Your task to perform on an android device: install app "TextNow: Call + Text Unlimited" Image 0: 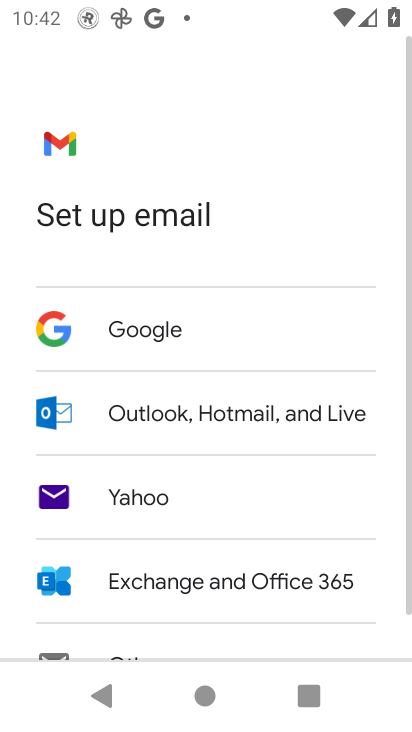
Step 0: press back button
Your task to perform on an android device: install app "TextNow: Call + Text Unlimited" Image 1: 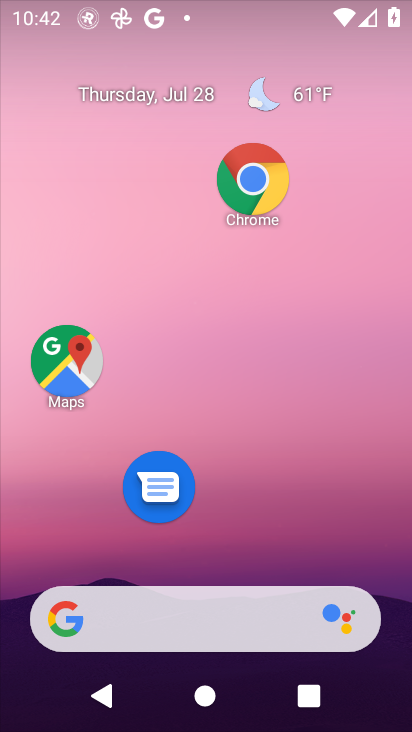
Step 1: drag from (251, 632) to (241, 131)
Your task to perform on an android device: install app "TextNow: Call + Text Unlimited" Image 2: 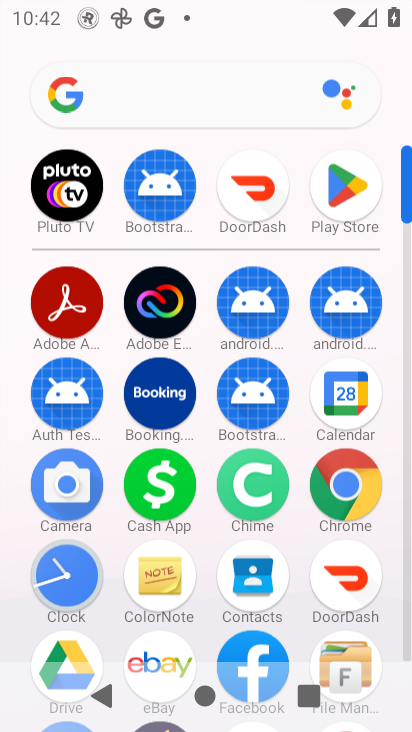
Step 2: drag from (263, 475) to (248, 123)
Your task to perform on an android device: install app "TextNow: Call + Text Unlimited" Image 3: 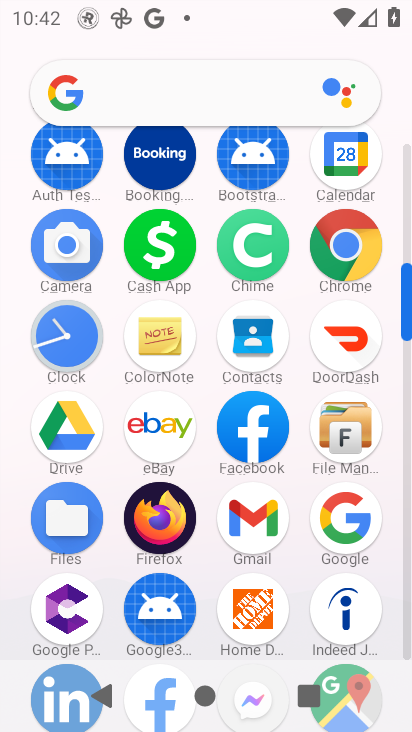
Step 3: drag from (272, 210) to (352, 529)
Your task to perform on an android device: install app "TextNow: Call + Text Unlimited" Image 4: 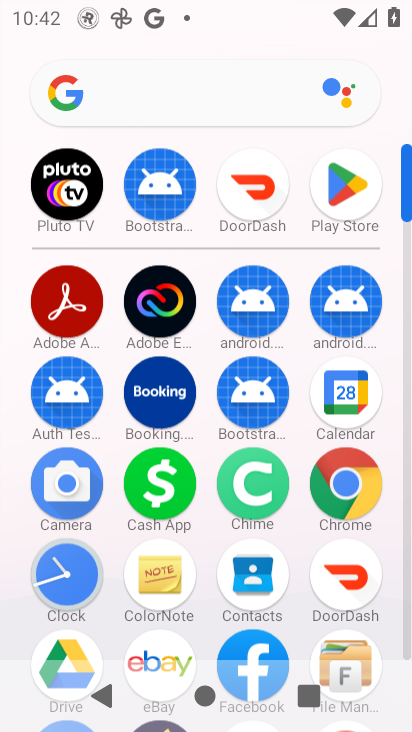
Step 4: drag from (329, 288) to (310, 555)
Your task to perform on an android device: install app "TextNow: Call + Text Unlimited" Image 5: 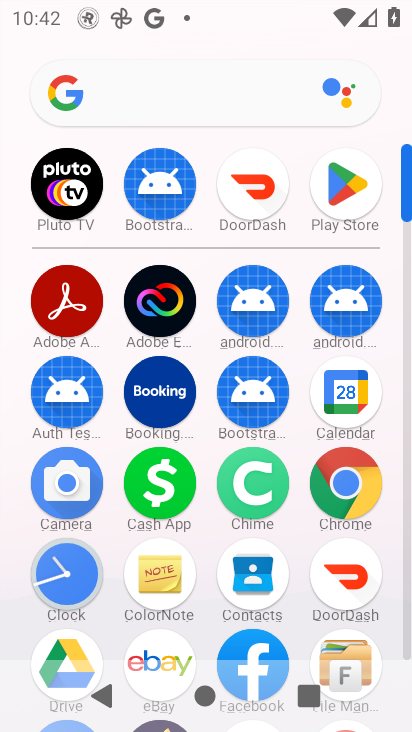
Step 5: click (349, 186)
Your task to perform on an android device: install app "TextNow: Call + Text Unlimited" Image 6: 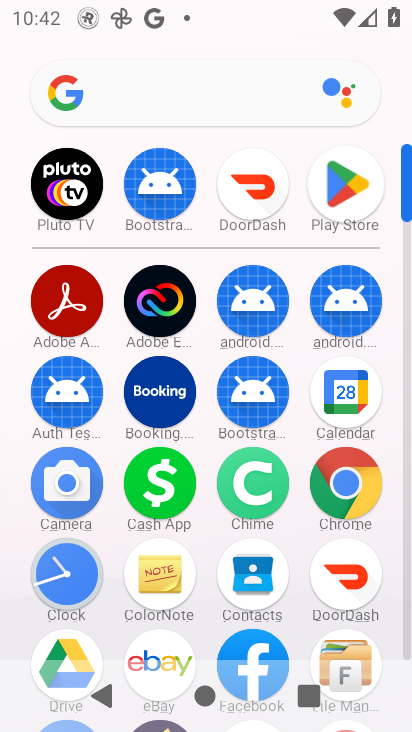
Step 6: click (350, 185)
Your task to perform on an android device: install app "TextNow: Call + Text Unlimited" Image 7: 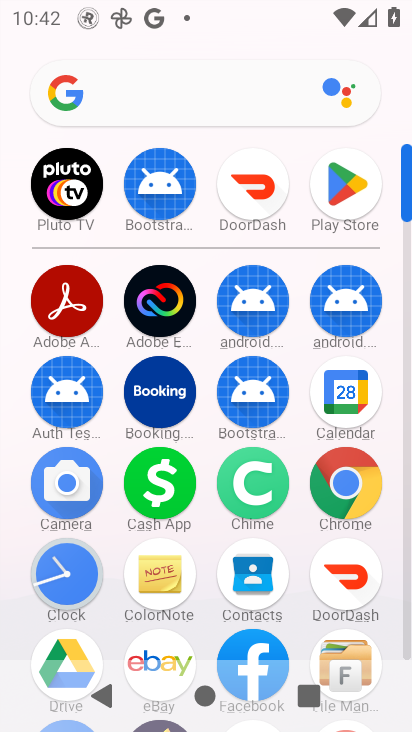
Step 7: click (345, 183)
Your task to perform on an android device: install app "TextNow: Call + Text Unlimited" Image 8: 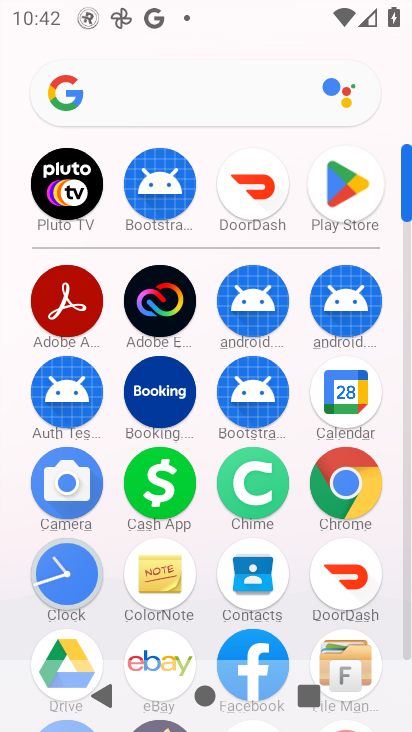
Step 8: click (345, 183)
Your task to perform on an android device: install app "TextNow: Call + Text Unlimited" Image 9: 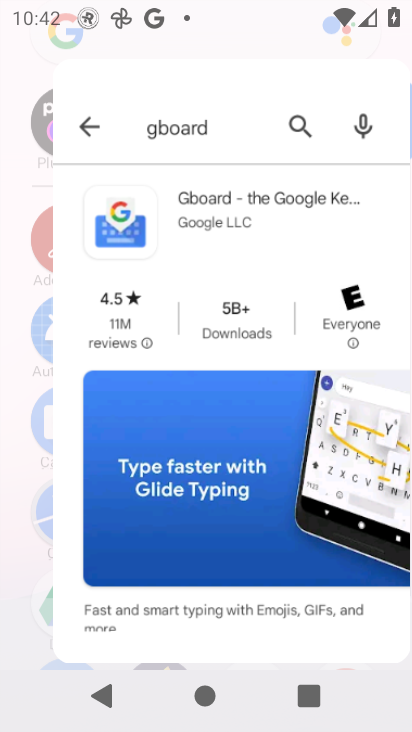
Step 9: click (345, 183)
Your task to perform on an android device: install app "TextNow: Call + Text Unlimited" Image 10: 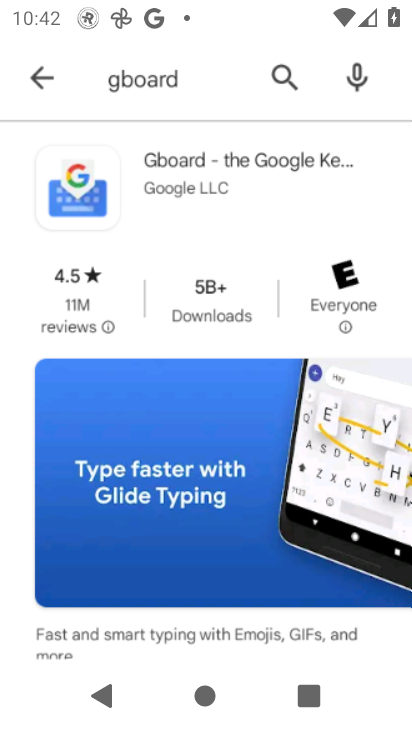
Step 10: click (345, 182)
Your task to perform on an android device: install app "TextNow: Call + Text Unlimited" Image 11: 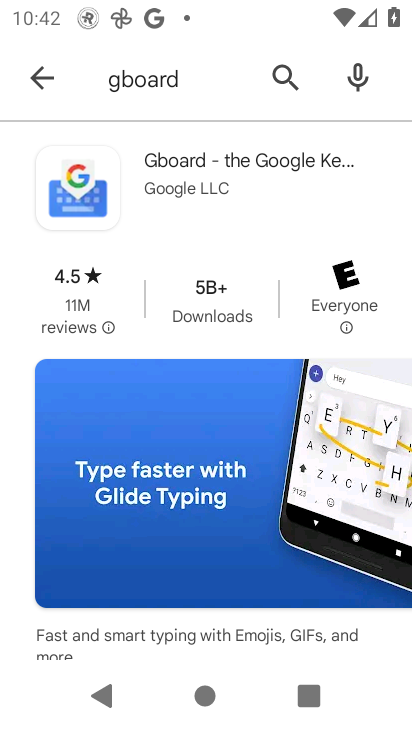
Step 11: click (345, 182)
Your task to perform on an android device: install app "TextNow: Call + Text Unlimited" Image 12: 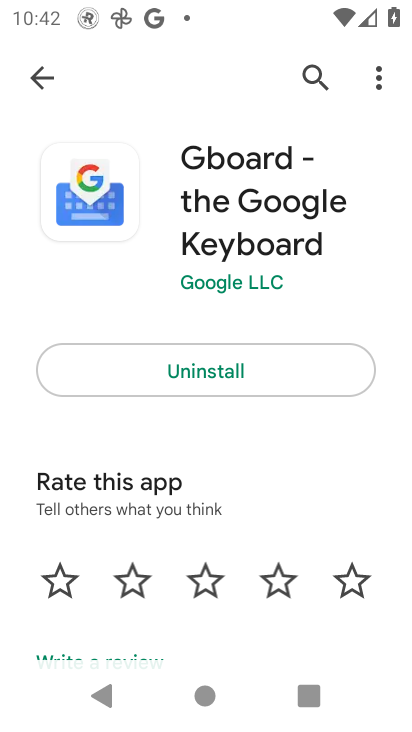
Step 12: click (43, 65)
Your task to perform on an android device: install app "TextNow: Call + Text Unlimited" Image 13: 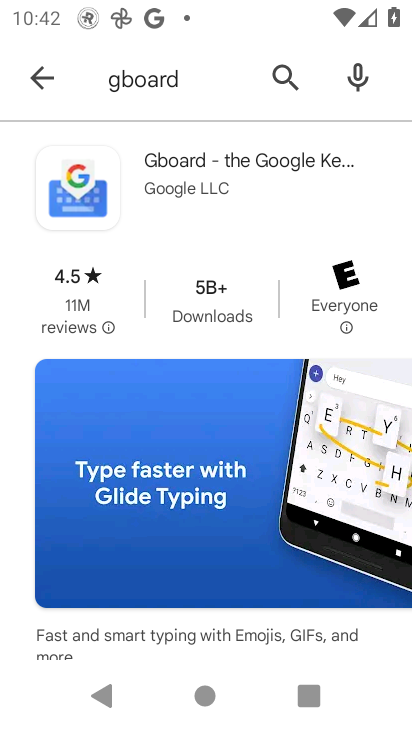
Step 13: click (44, 72)
Your task to perform on an android device: install app "TextNow: Call + Text Unlimited" Image 14: 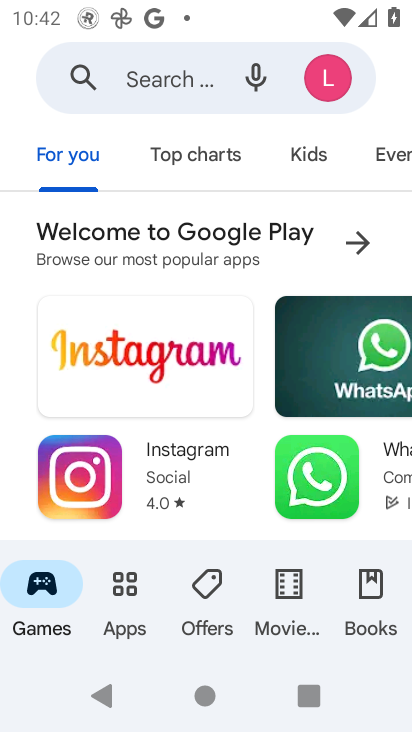
Step 14: click (137, 69)
Your task to perform on an android device: install app "TextNow: Call + Text Unlimited" Image 15: 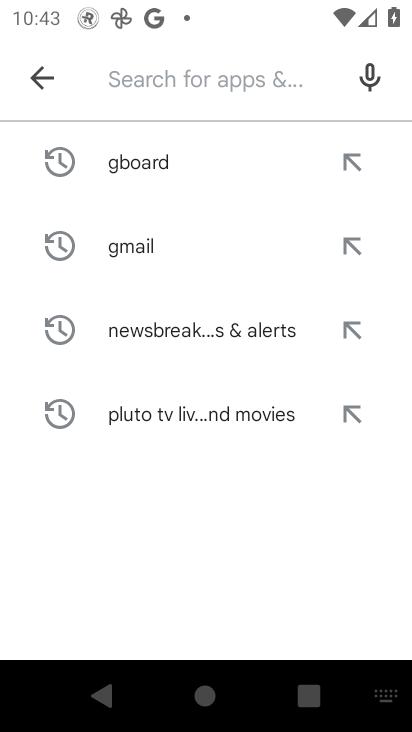
Step 15: type "TextNow Call"
Your task to perform on an android device: install app "TextNow: Call + Text Unlimited" Image 16: 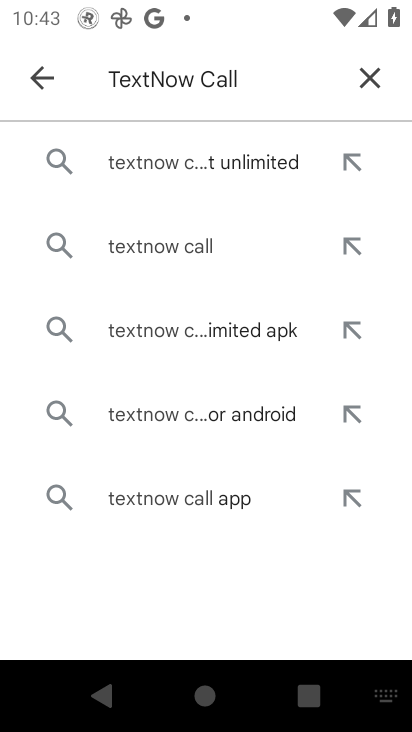
Step 16: click (188, 243)
Your task to perform on an android device: install app "TextNow: Call + Text Unlimited" Image 17: 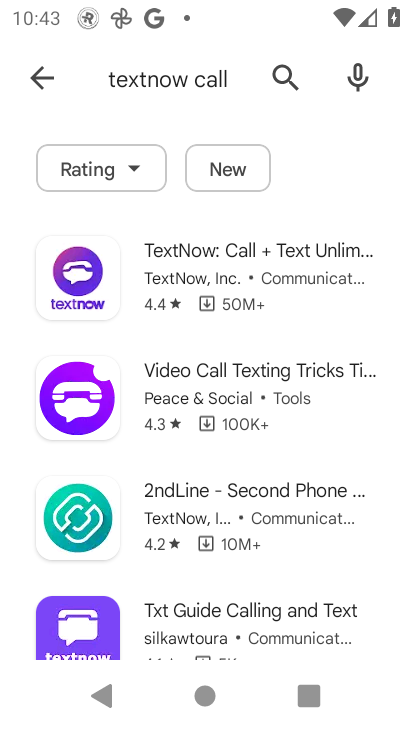
Step 17: drag from (229, 414) to (266, 213)
Your task to perform on an android device: install app "TextNow: Call + Text Unlimited" Image 18: 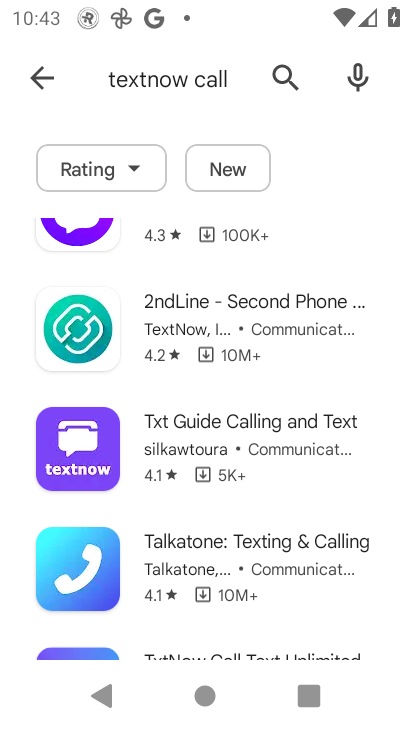
Step 18: drag from (275, 584) to (288, 308)
Your task to perform on an android device: install app "TextNow: Call + Text Unlimited" Image 19: 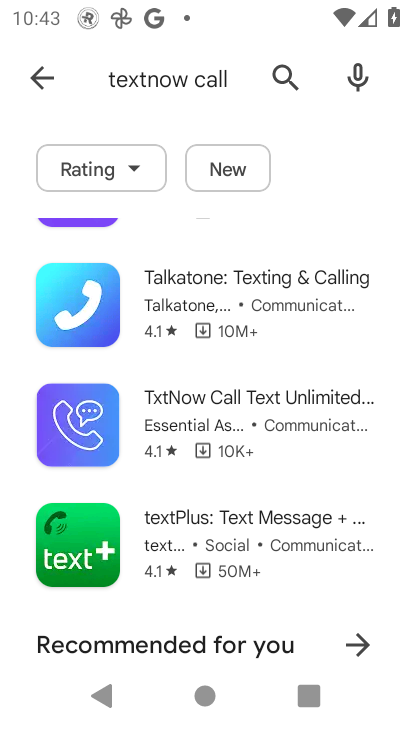
Step 19: drag from (262, 508) to (283, 305)
Your task to perform on an android device: install app "TextNow: Call + Text Unlimited" Image 20: 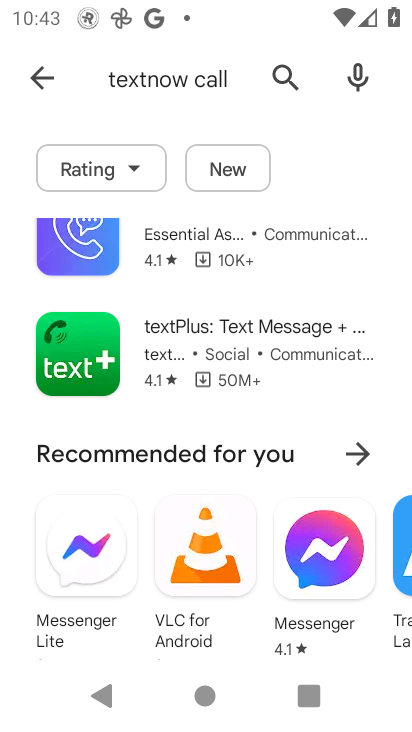
Step 20: click (309, 360)
Your task to perform on an android device: install app "TextNow: Call + Text Unlimited" Image 21: 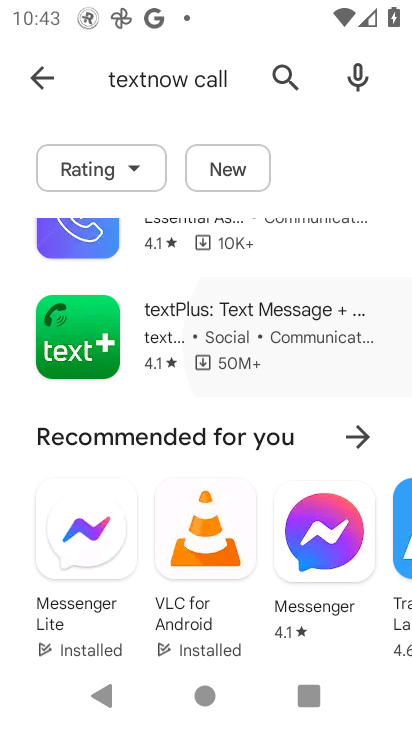
Step 21: drag from (303, 491) to (293, 351)
Your task to perform on an android device: install app "TextNow: Call + Text Unlimited" Image 22: 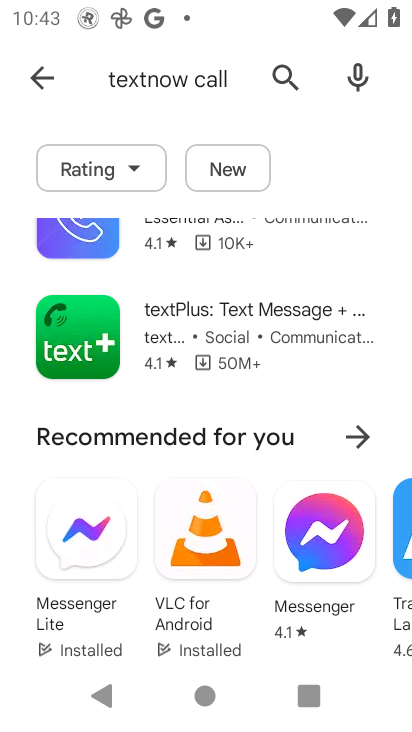
Step 22: drag from (280, 447) to (300, 311)
Your task to perform on an android device: install app "TextNow: Call + Text Unlimited" Image 23: 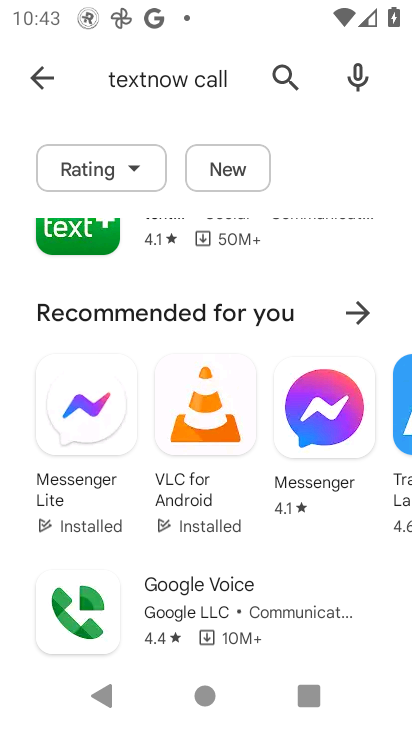
Step 23: drag from (294, 315) to (283, 601)
Your task to perform on an android device: install app "TextNow: Call + Text Unlimited" Image 24: 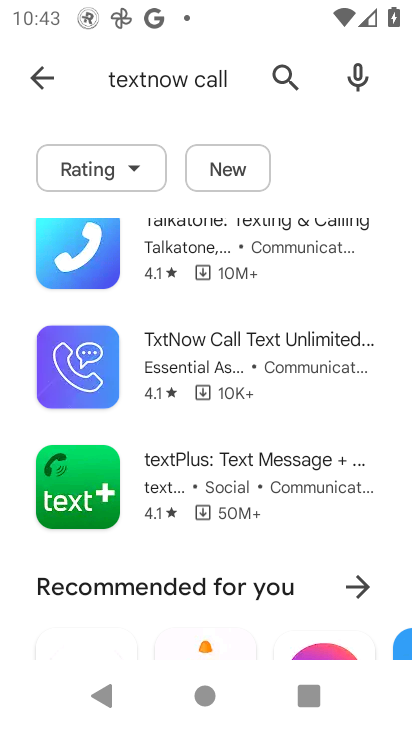
Step 24: drag from (241, 425) to (240, 626)
Your task to perform on an android device: install app "TextNow: Call + Text Unlimited" Image 25: 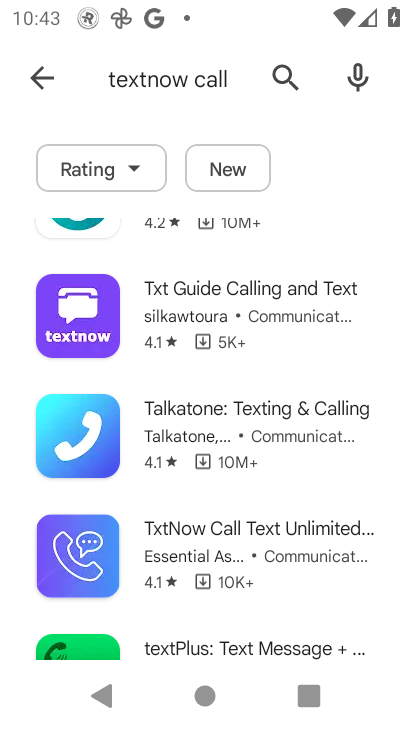
Step 25: click (254, 681)
Your task to perform on an android device: install app "TextNow: Call + Text Unlimited" Image 26: 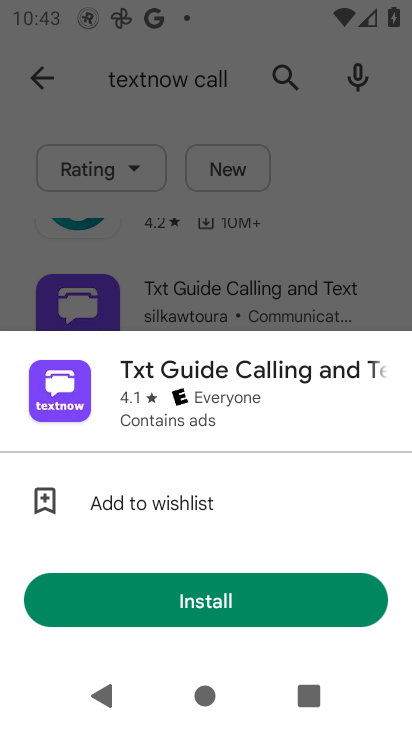
Step 26: drag from (233, 401) to (254, 656)
Your task to perform on an android device: install app "TextNow: Call + Text Unlimited" Image 27: 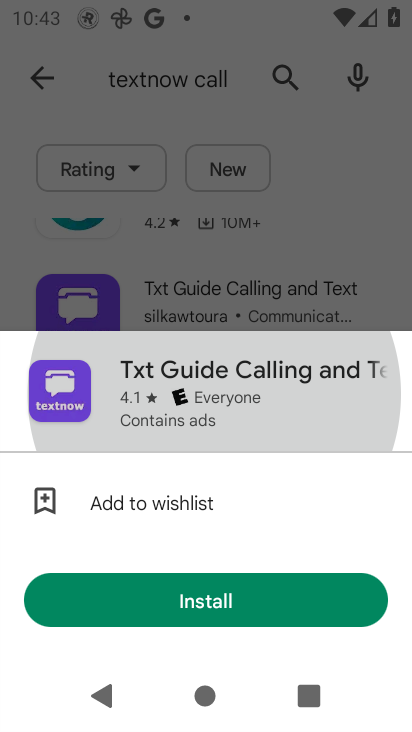
Step 27: drag from (202, 310) to (240, 575)
Your task to perform on an android device: install app "TextNow: Call + Text Unlimited" Image 28: 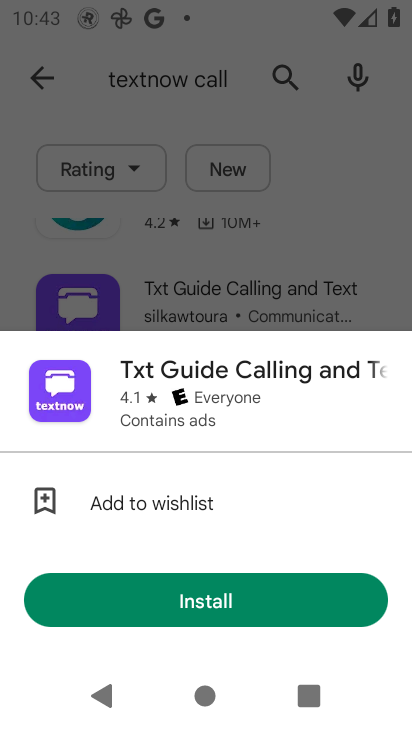
Step 28: drag from (235, 304) to (237, 616)
Your task to perform on an android device: install app "TextNow: Call + Text Unlimited" Image 29: 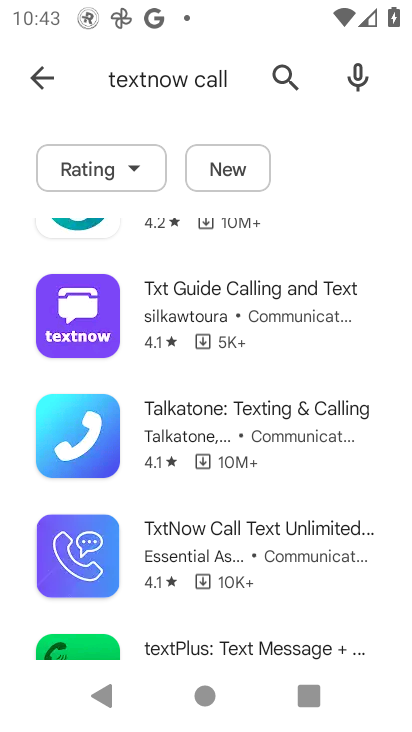
Step 29: drag from (232, 406) to (234, 586)
Your task to perform on an android device: install app "TextNow: Call + Text Unlimited" Image 30: 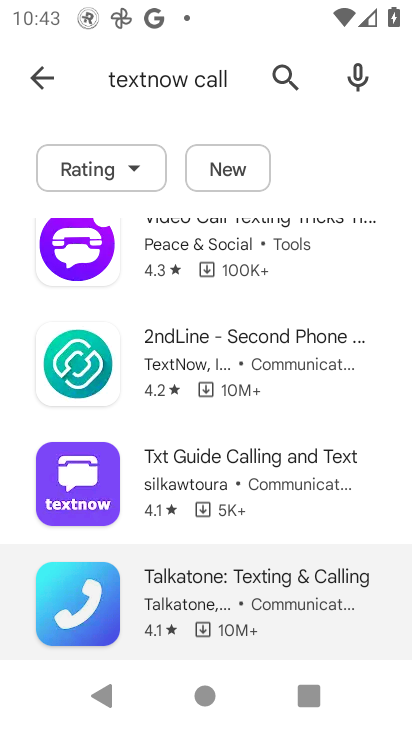
Step 30: click (369, 260)
Your task to perform on an android device: install app "TextNow: Call + Text Unlimited" Image 31: 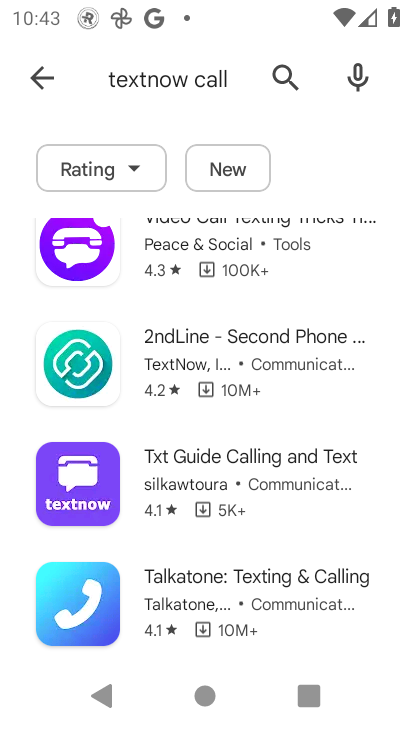
Step 31: drag from (318, 286) to (350, 485)
Your task to perform on an android device: install app "TextNow: Call + Text Unlimited" Image 32: 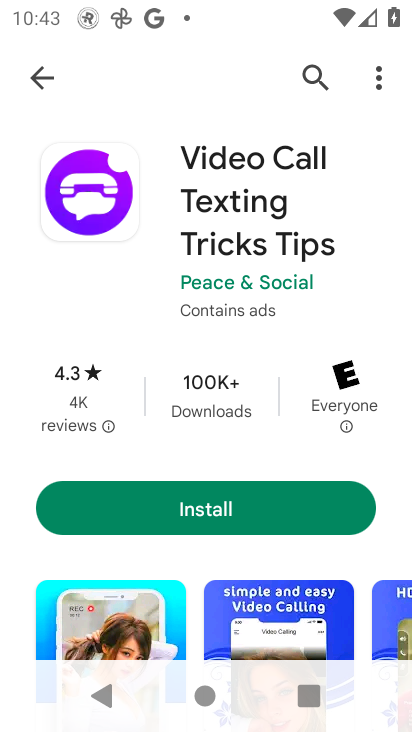
Step 32: click (41, 72)
Your task to perform on an android device: install app "TextNow: Call + Text Unlimited" Image 33: 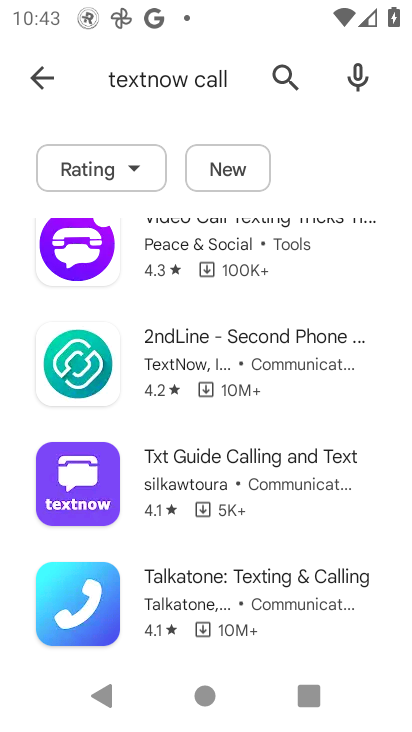
Step 33: task complete